Your task to perform on an android device: turn off smart reply in the gmail app Image 0: 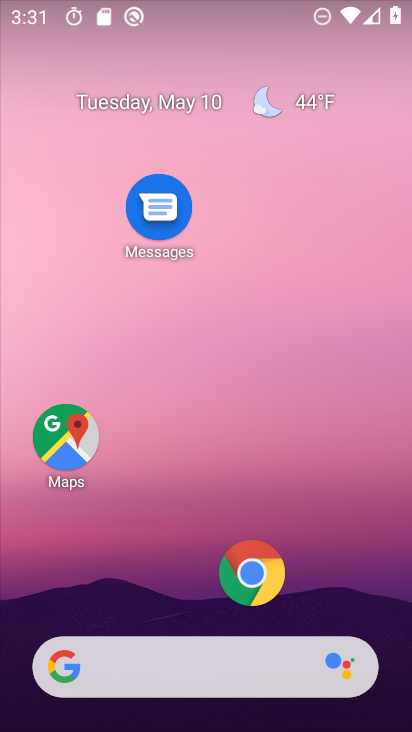
Step 0: drag from (188, 616) to (202, 214)
Your task to perform on an android device: turn off smart reply in the gmail app Image 1: 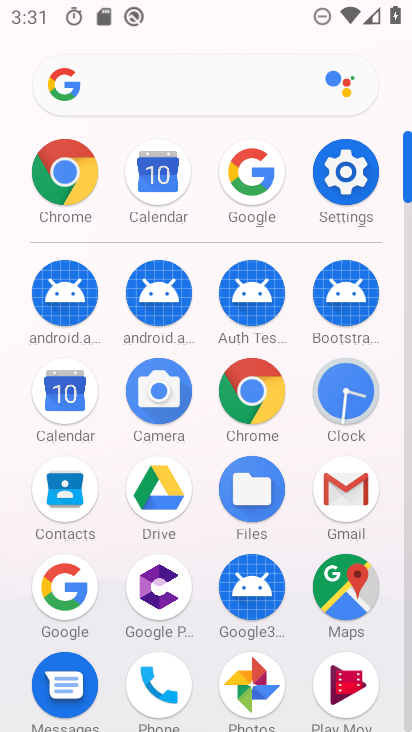
Step 1: click (325, 479)
Your task to perform on an android device: turn off smart reply in the gmail app Image 2: 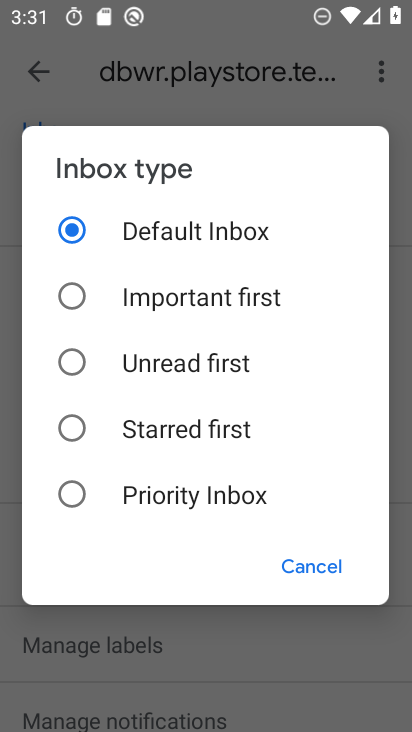
Step 2: click (313, 567)
Your task to perform on an android device: turn off smart reply in the gmail app Image 3: 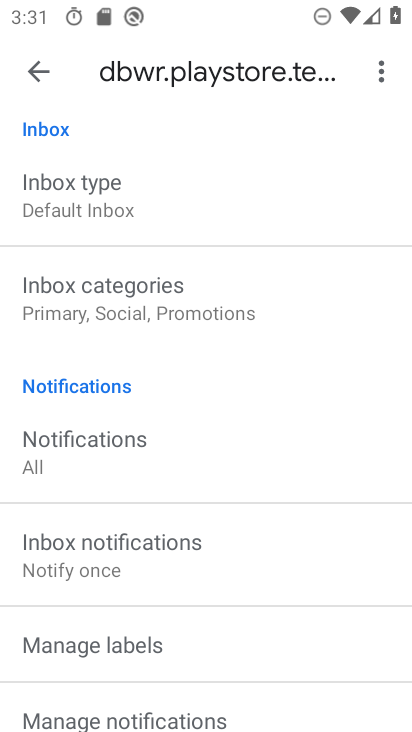
Step 3: drag from (224, 591) to (284, 266)
Your task to perform on an android device: turn off smart reply in the gmail app Image 4: 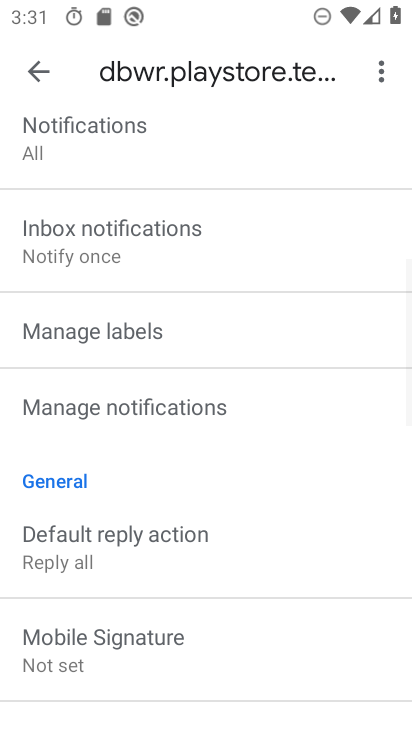
Step 4: drag from (229, 587) to (277, 317)
Your task to perform on an android device: turn off smart reply in the gmail app Image 5: 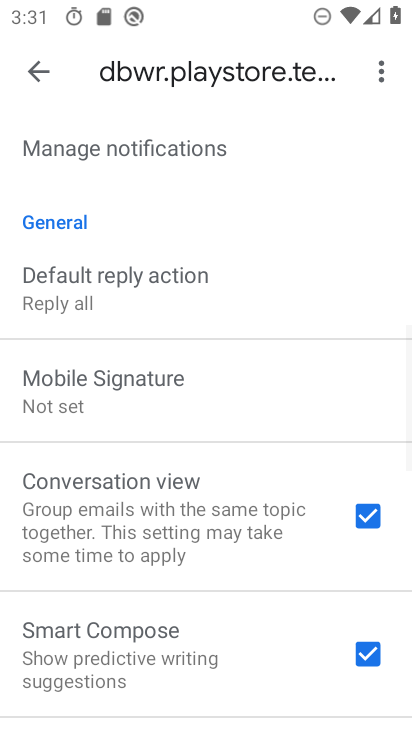
Step 5: drag from (202, 619) to (242, 387)
Your task to perform on an android device: turn off smart reply in the gmail app Image 6: 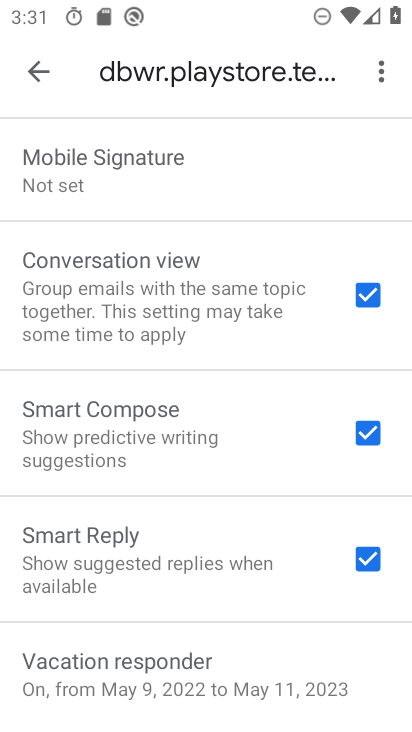
Step 6: click (368, 554)
Your task to perform on an android device: turn off smart reply in the gmail app Image 7: 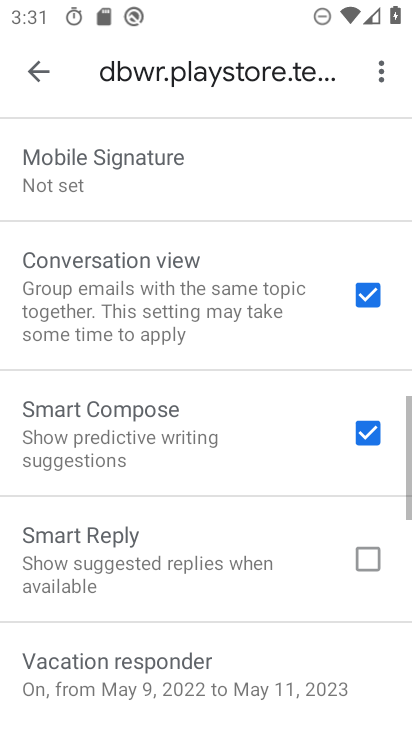
Step 7: task complete